Your task to perform on an android device: What is the recent news? Image 0: 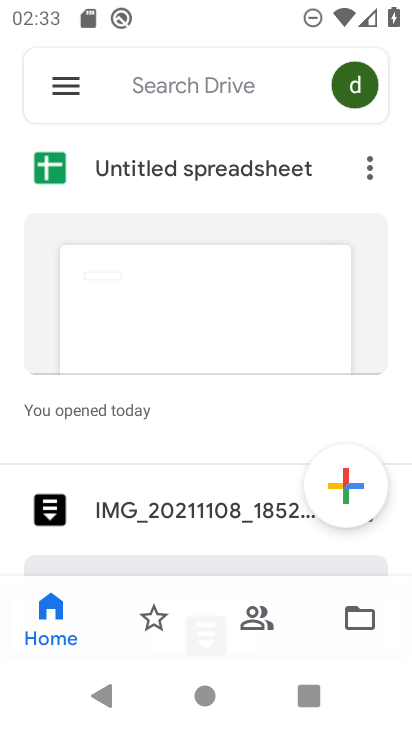
Step 0: press home button
Your task to perform on an android device: What is the recent news? Image 1: 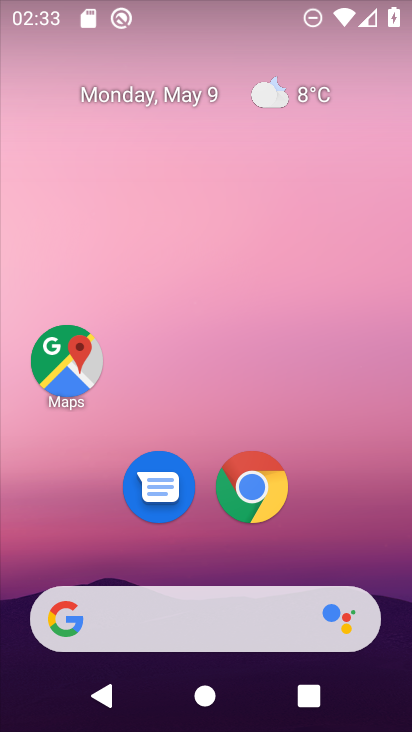
Step 1: task complete